Your task to perform on an android device: open app "Skype" Image 0: 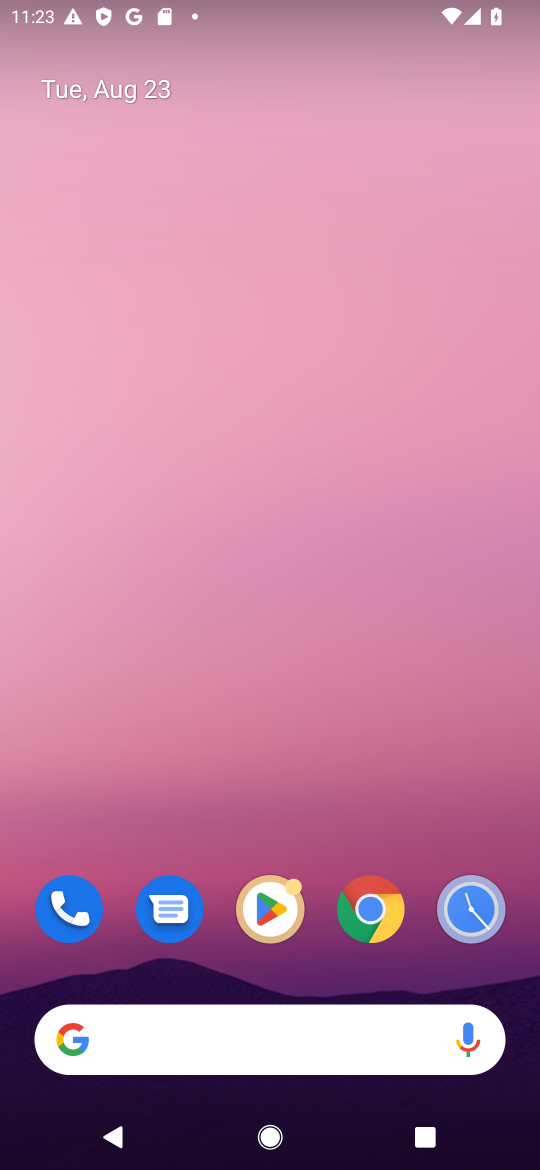
Step 0: click (262, 907)
Your task to perform on an android device: open app "Skype" Image 1: 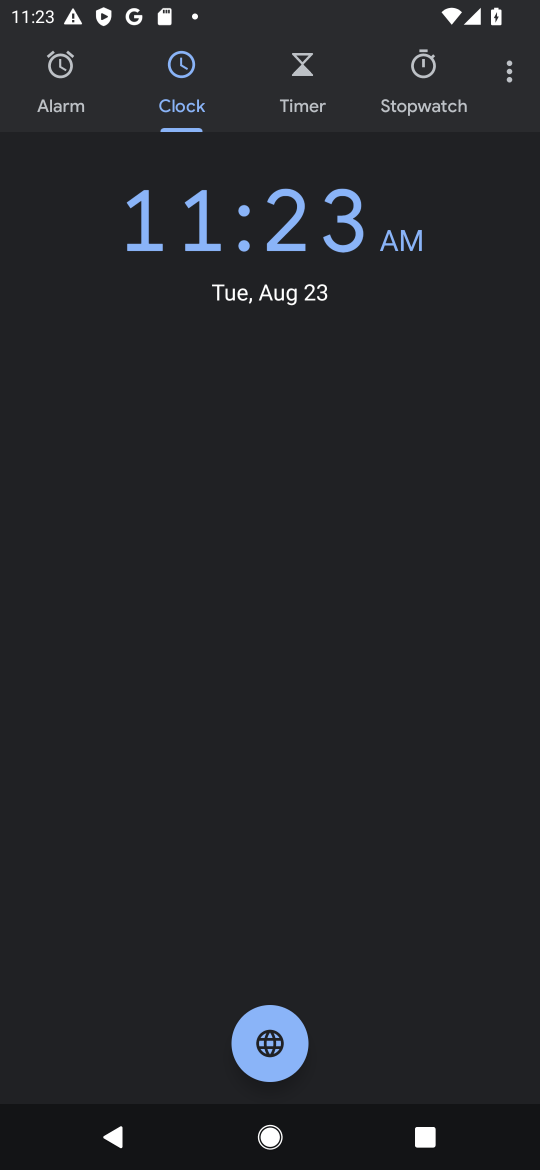
Step 1: press home button
Your task to perform on an android device: open app "Skype" Image 2: 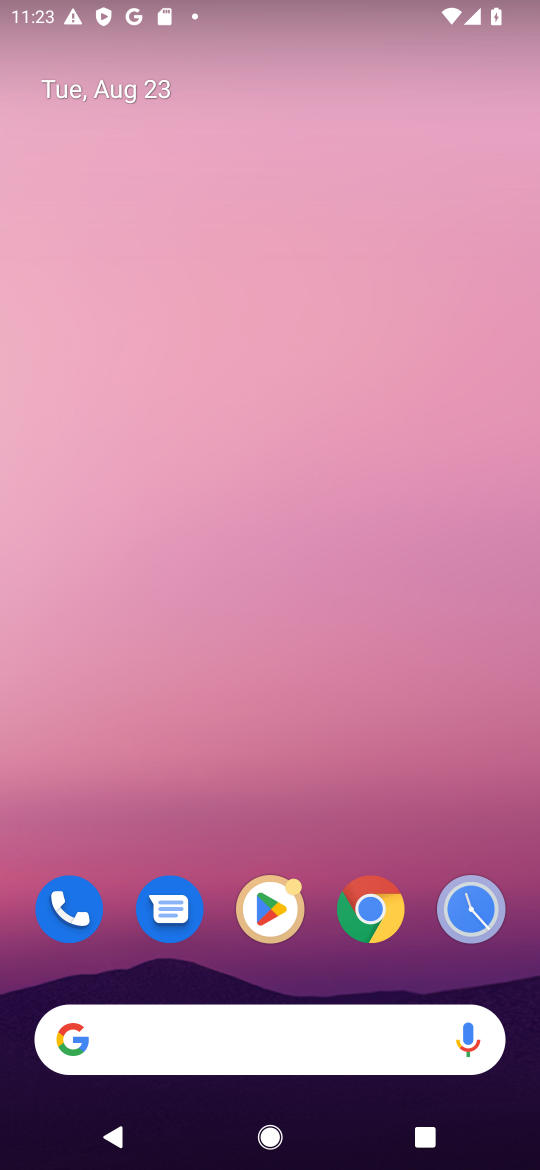
Step 2: click (265, 889)
Your task to perform on an android device: open app "Skype" Image 3: 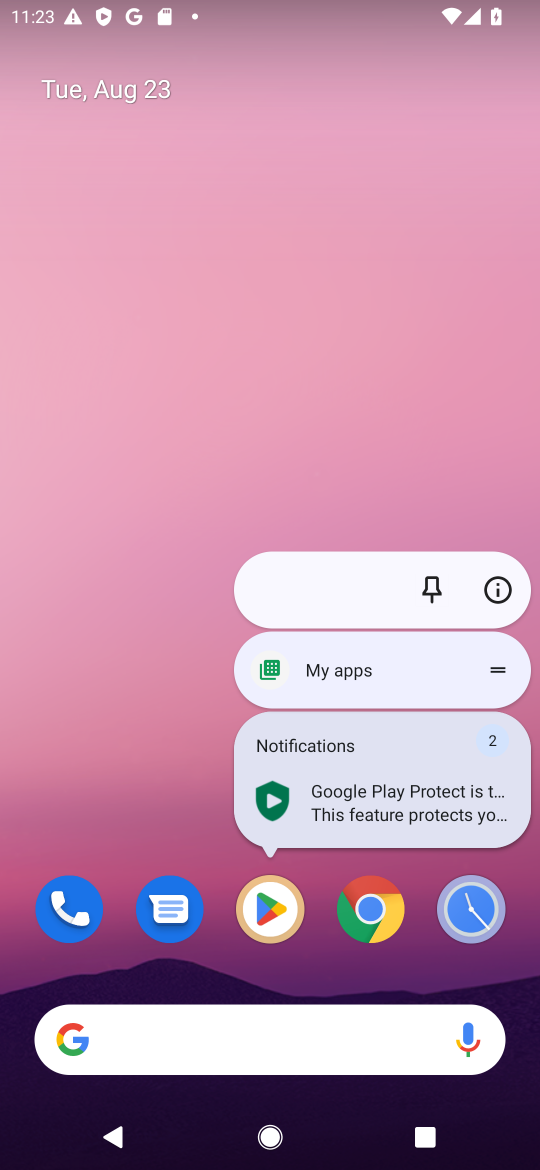
Step 3: click (261, 897)
Your task to perform on an android device: open app "Skype" Image 4: 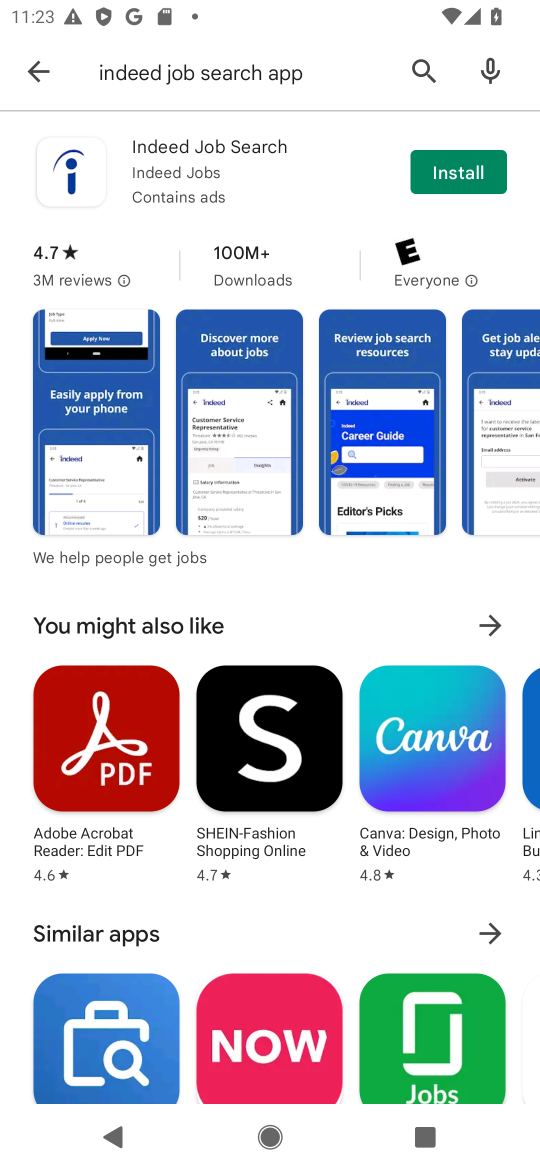
Step 4: click (248, 87)
Your task to perform on an android device: open app "Skype" Image 5: 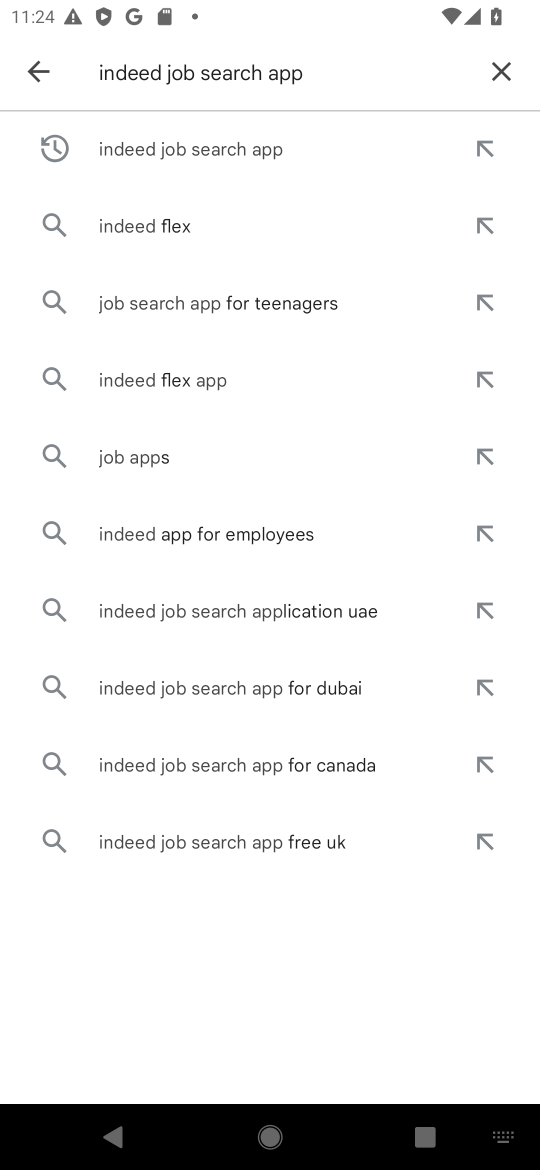
Step 5: click (495, 64)
Your task to perform on an android device: open app "Skype" Image 6: 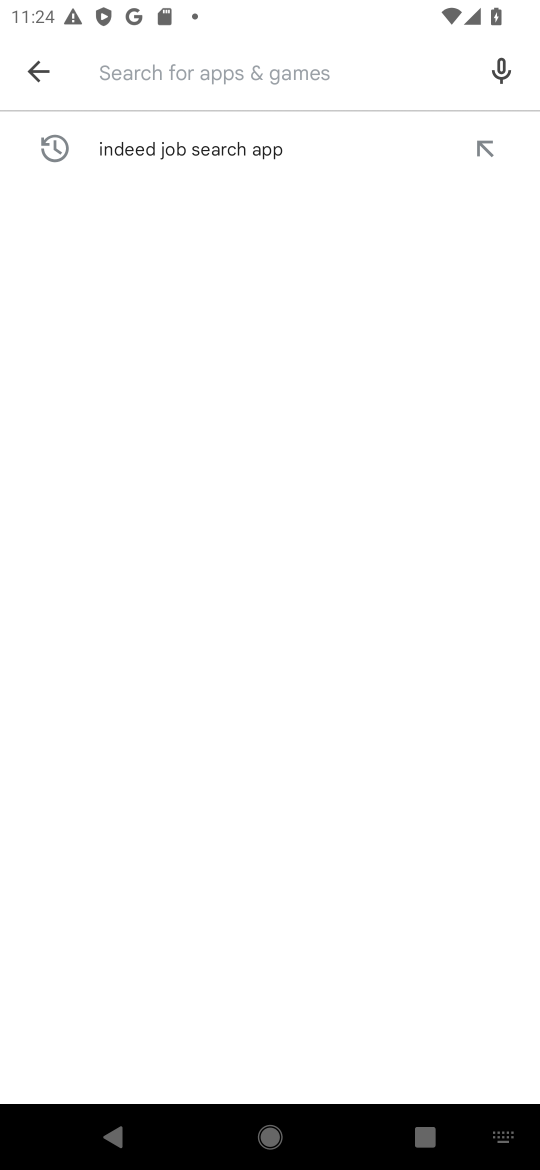
Step 6: type "Skype"
Your task to perform on an android device: open app "Skype" Image 7: 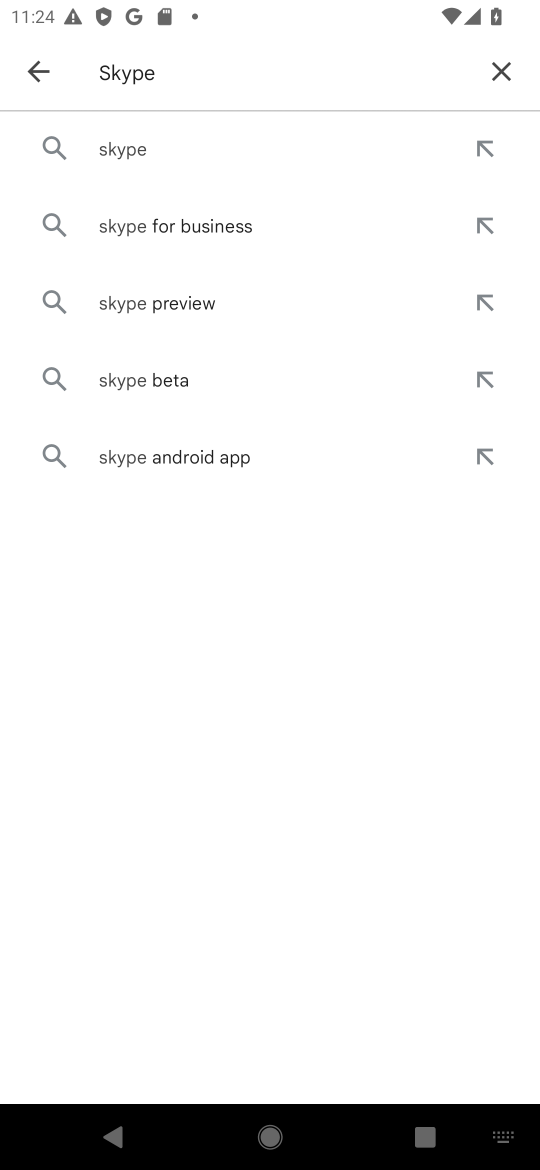
Step 7: click (123, 151)
Your task to perform on an android device: open app "Skype" Image 8: 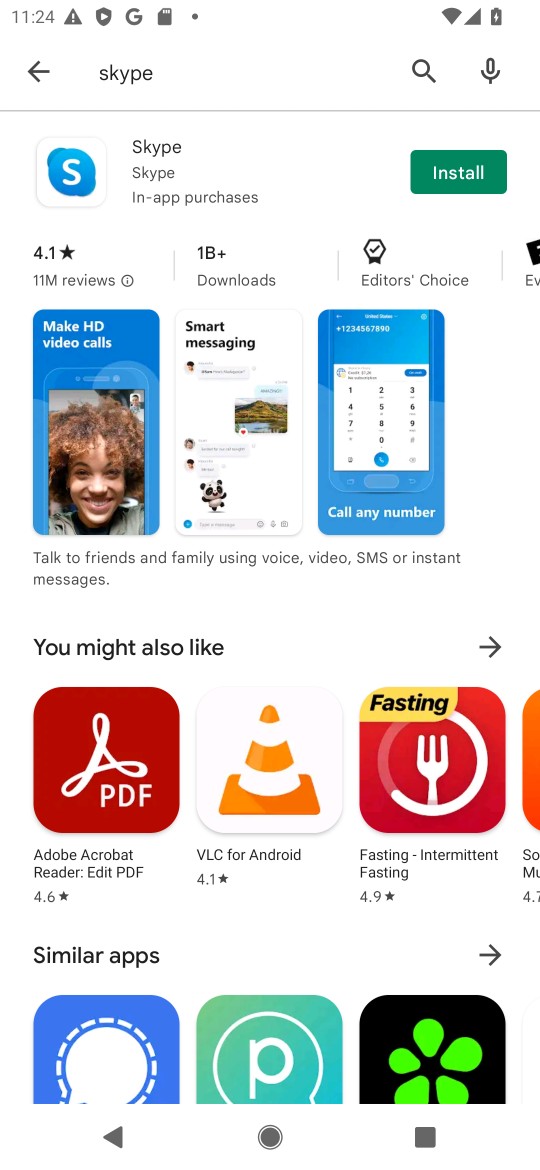
Step 8: task complete